Your task to perform on an android device: change notification settings in the gmail app Image 0: 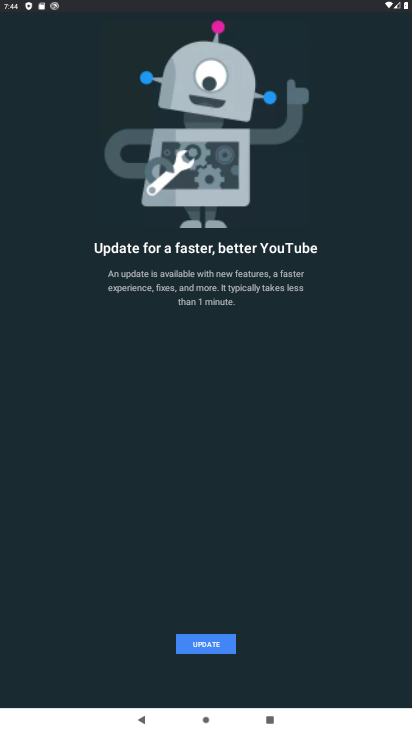
Step 0: press home button
Your task to perform on an android device: change notification settings in the gmail app Image 1: 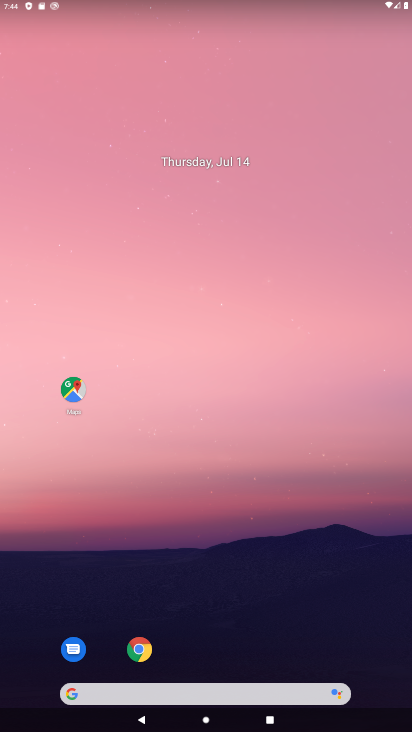
Step 1: drag from (245, 567) to (229, 65)
Your task to perform on an android device: change notification settings in the gmail app Image 2: 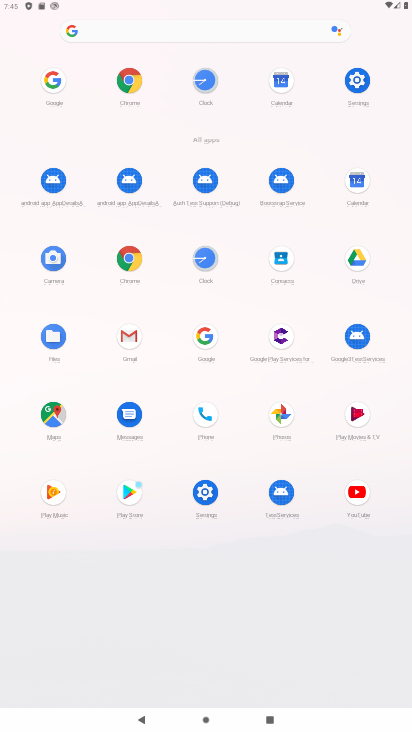
Step 2: click (117, 343)
Your task to perform on an android device: change notification settings in the gmail app Image 3: 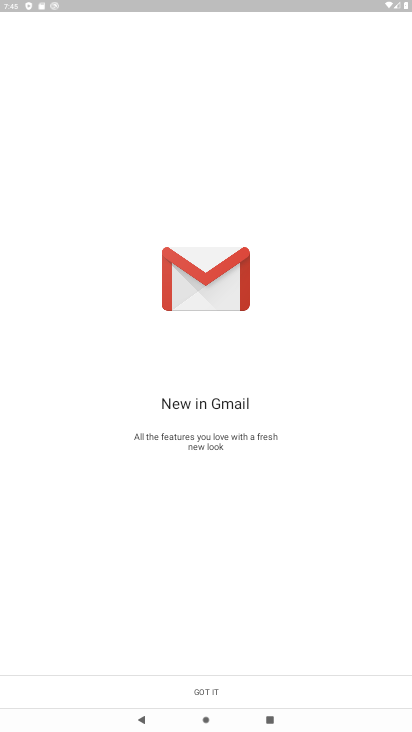
Step 3: click (201, 687)
Your task to perform on an android device: change notification settings in the gmail app Image 4: 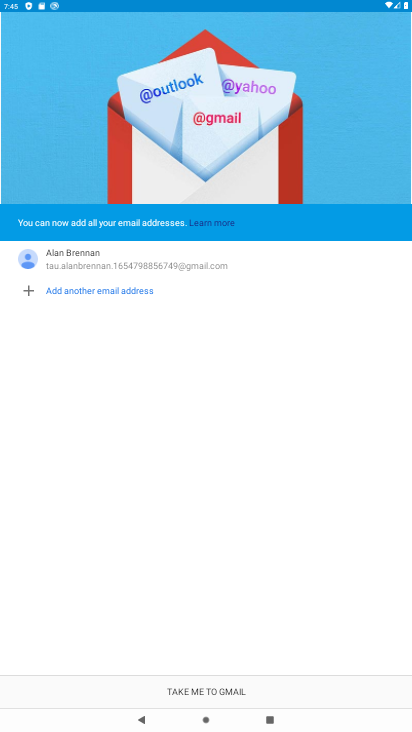
Step 4: click (192, 697)
Your task to perform on an android device: change notification settings in the gmail app Image 5: 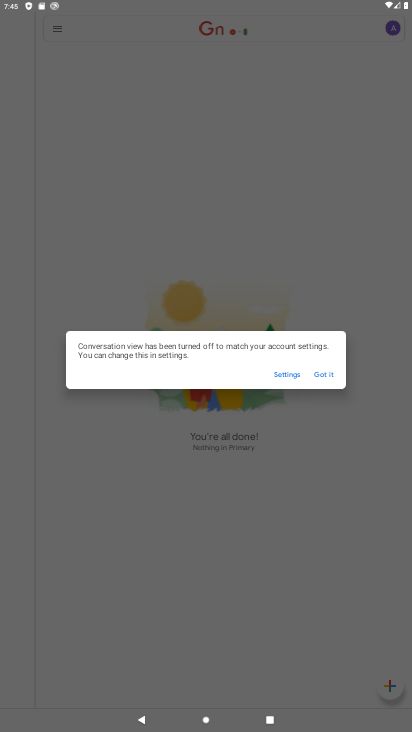
Step 5: click (324, 372)
Your task to perform on an android device: change notification settings in the gmail app Image 6: 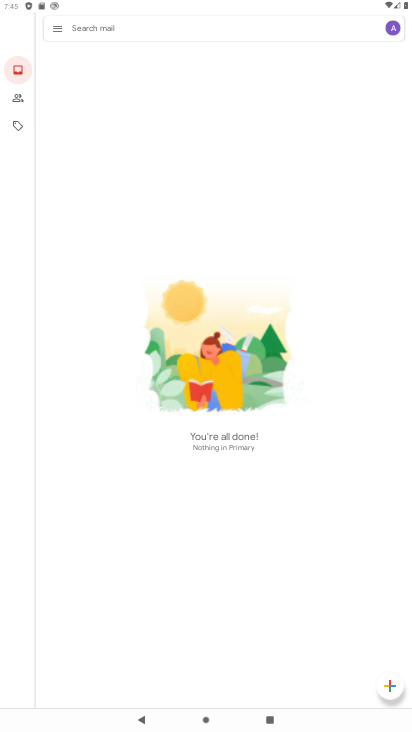
Step 6: click (52, 25)
Your task to perform on an android device: change notification settings in the gmail app Image 7: 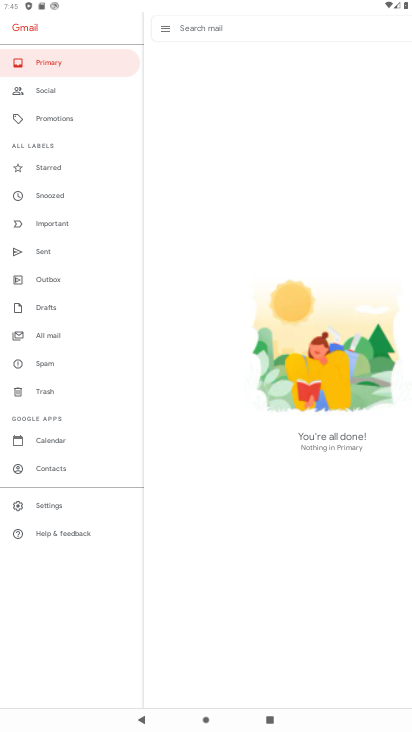
Step 7: click (80, 503)
Your task to perform on an android device: change notification settings in the gmail app Image 8: 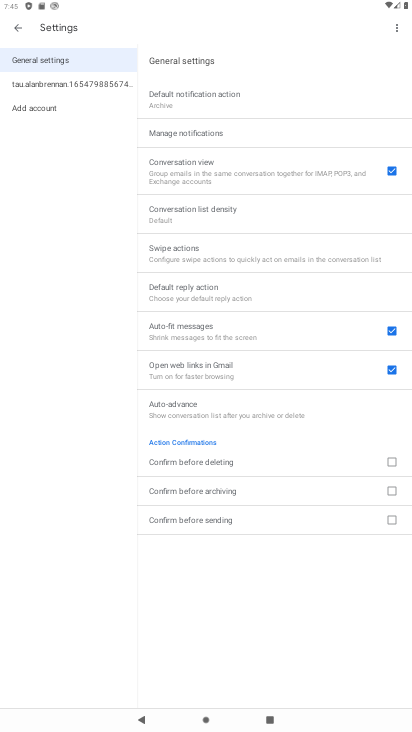
Step 8: drag from (276, 342) to (229, 141)
Your task to perform on an android device: change notification settings in the gmail app Image 9: 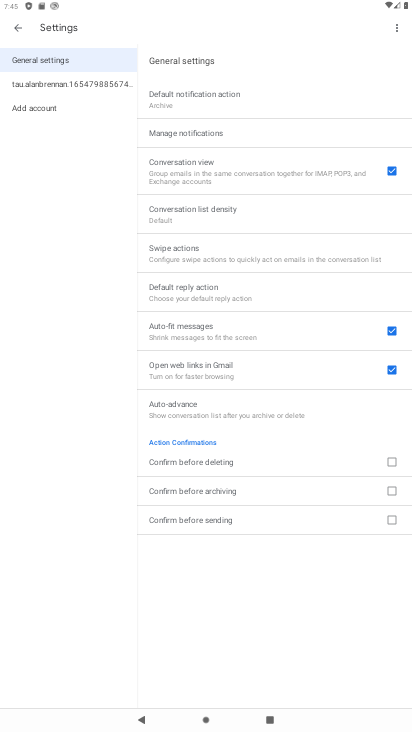
Step 9: click (181, 127)
Your task to perform on an android device: change notification settings in the gmail app Image 10: 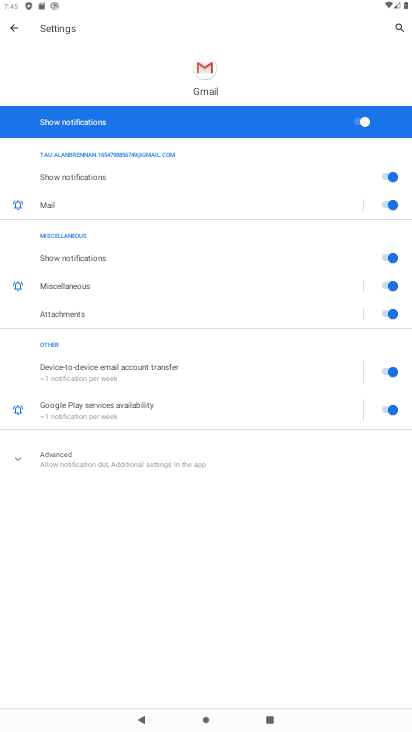
Step 10: click (368, 122)
Your task to perform on an android device: change notification settings in the gmail app Image 11: 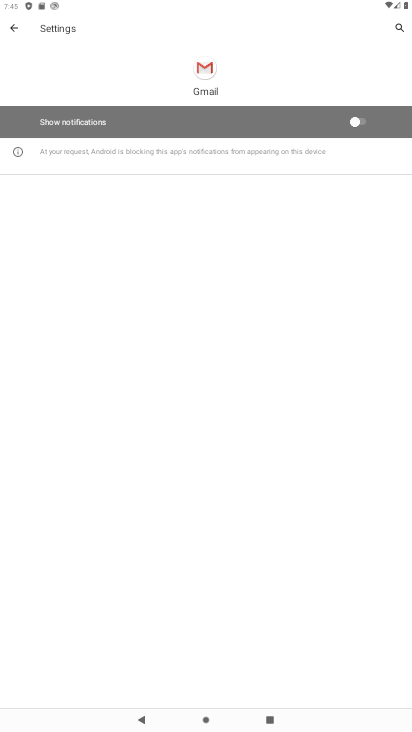
Step 11: task complete